Your task to perform on an android device: open app "Truecaller" Image 0: 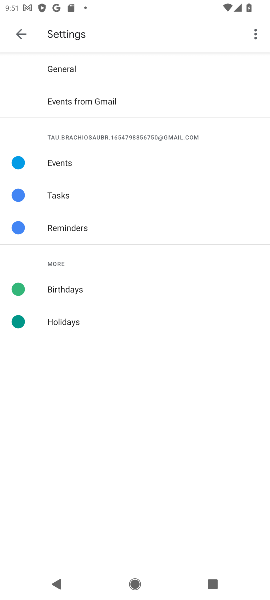
Step 0: press home button
Your task to perform on an android device: open app "Truecaller" Image 1: 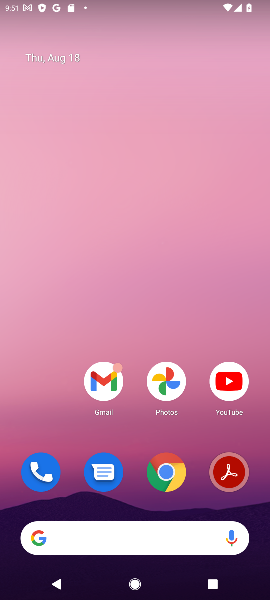
Step 1: drag from (155, 434) to (117, 86)
Your task to perform on an android device: open app "Truecaller" Image 2: 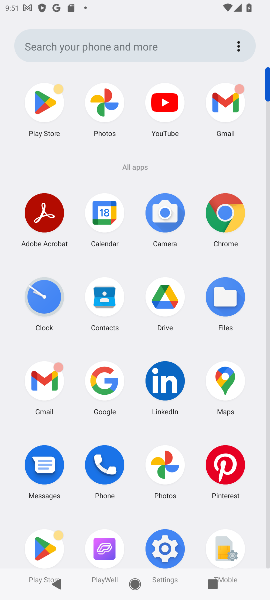
Step 2: click (52, 101)
Your task to perform on an android device: open app "Truecaller" Image 3: 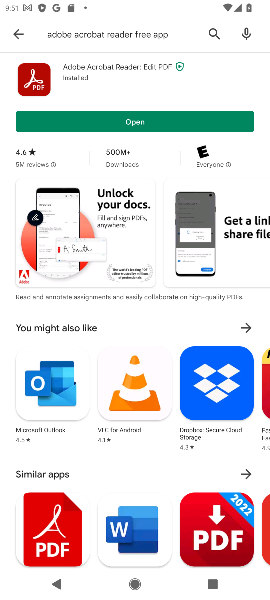
Step 3: click (209, 30)
Your task to perform on an android device: open app "Truecaller" Image 4: 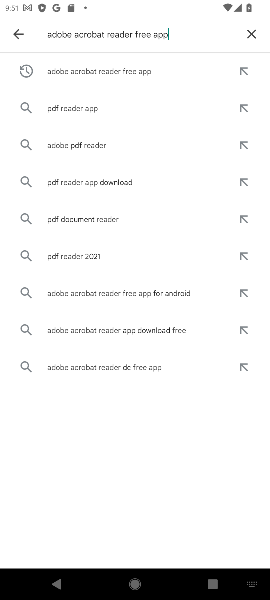
Step 4: click (251, 35)
Your task to perform on an android device: open app "Truecaller" Image 5: 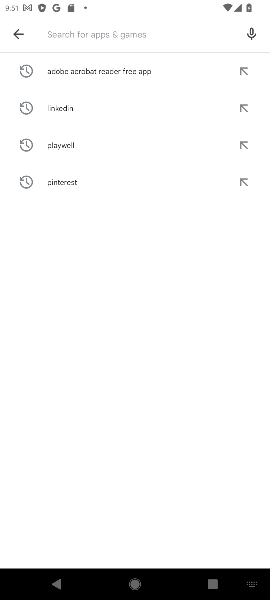
Step 5: type "truecaller"
Your task to perform on an android device: open app "Truecaller" Image 6: 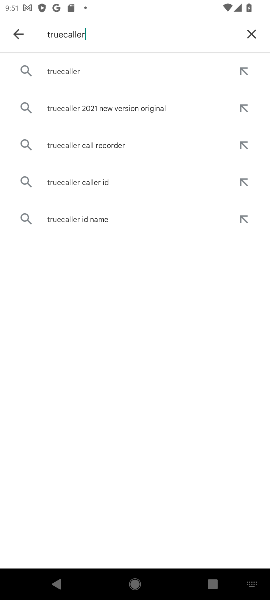
Step 6: click (63, 70)
Your task to perform on an android device: open app "Truecaller" Image 7: 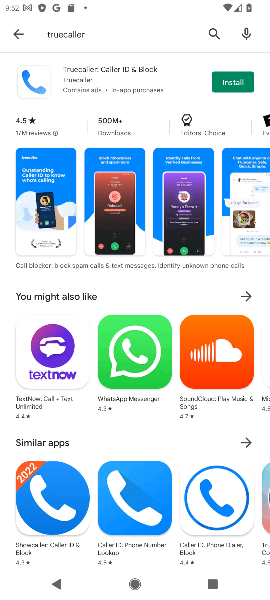
Step 7: click (166, 78)
Your task to perform on an android device: open app "Truecaller" Image 8: 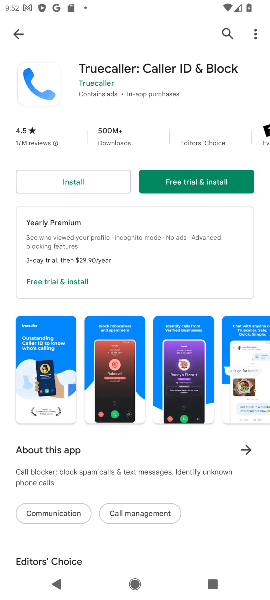
Step 8: task complete